Your task to perform on an android device: turn on javascript in the chrome app Image 0: 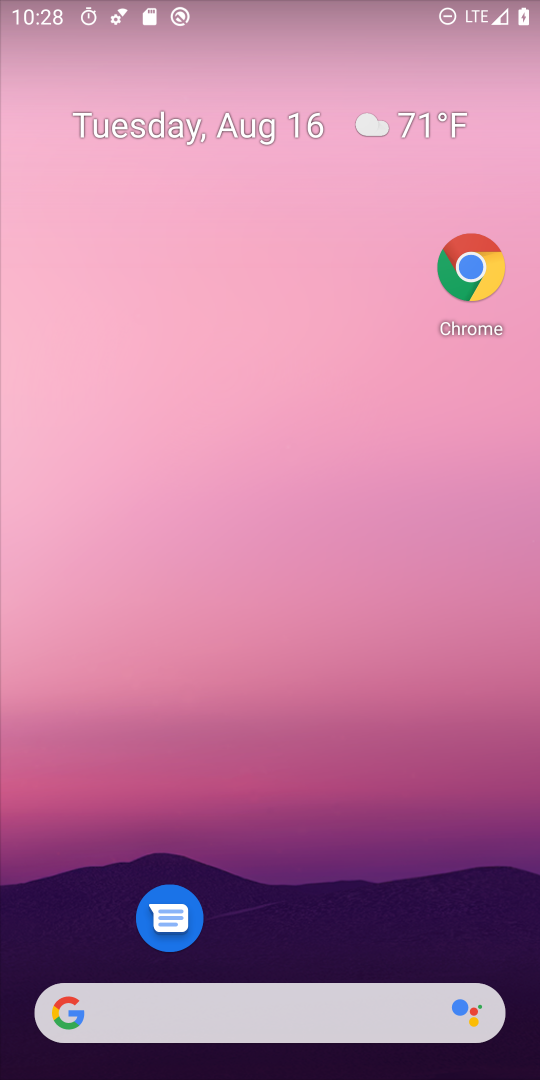
Step 0: drag from (273, 955) to (222, 206)
Your task to perform on an android device: turn on javascript in the chrome app Image 1: 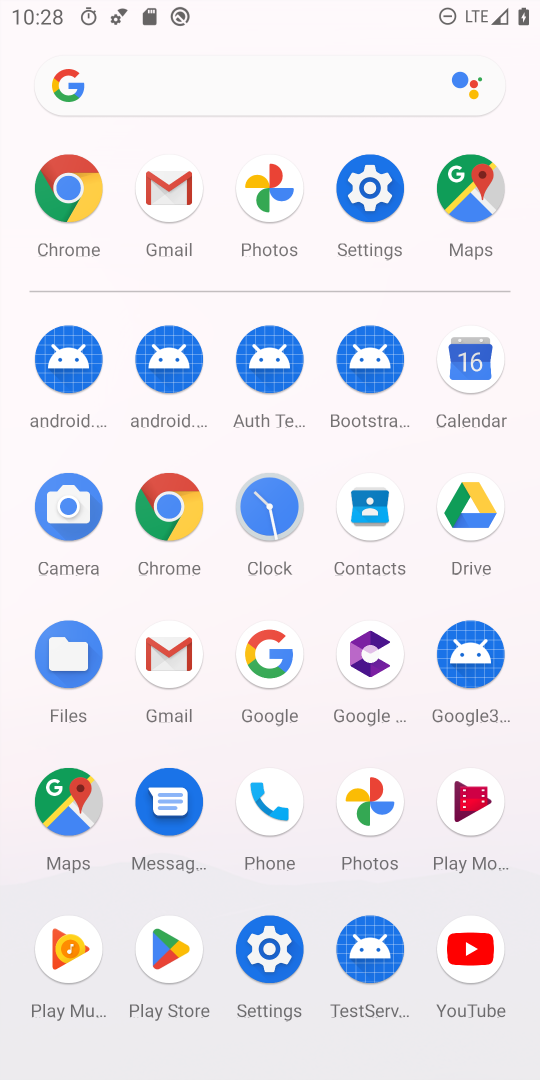
Step 1: click (175, 547)
Your task to perform on an android device: turn on javascript in the chrome app Image 2: 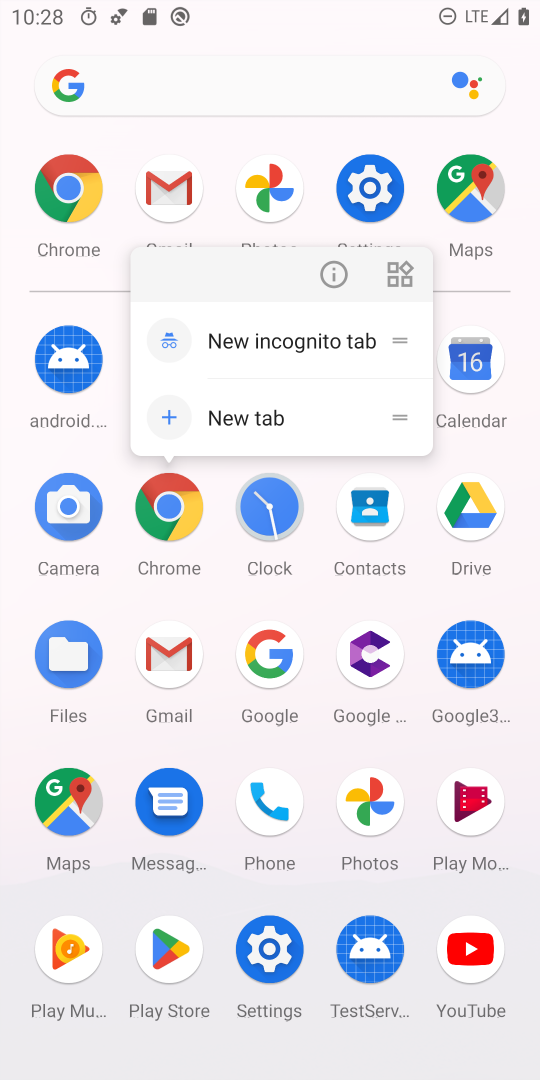
Step 2: click (172, 541)
Your task to perform on an android device: turn on javascript in the chrome app Image 3: 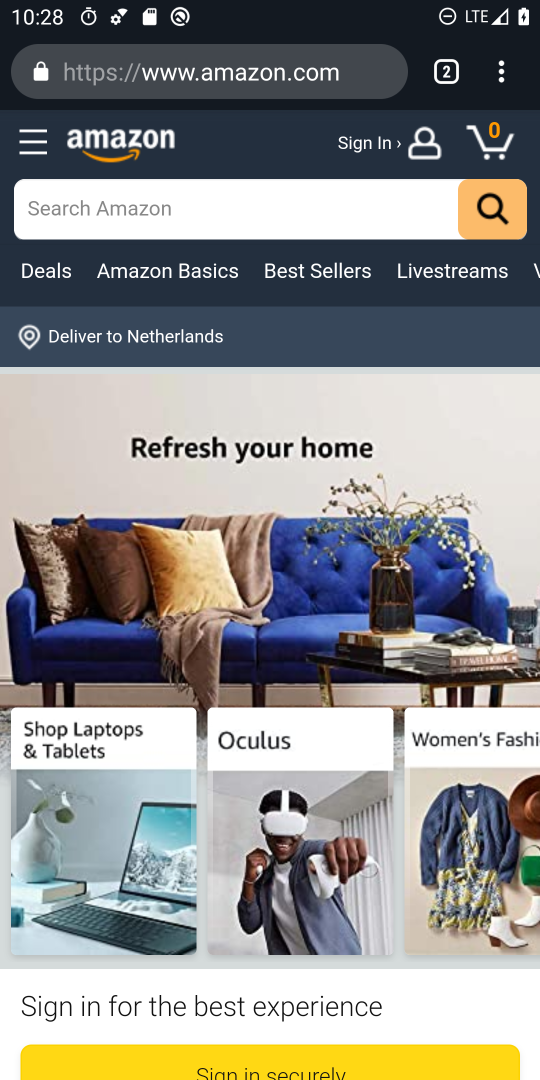
Step 3: click (515, 78)
Your task to perform on an android device: turn on javascript in the chrome app Image 4: 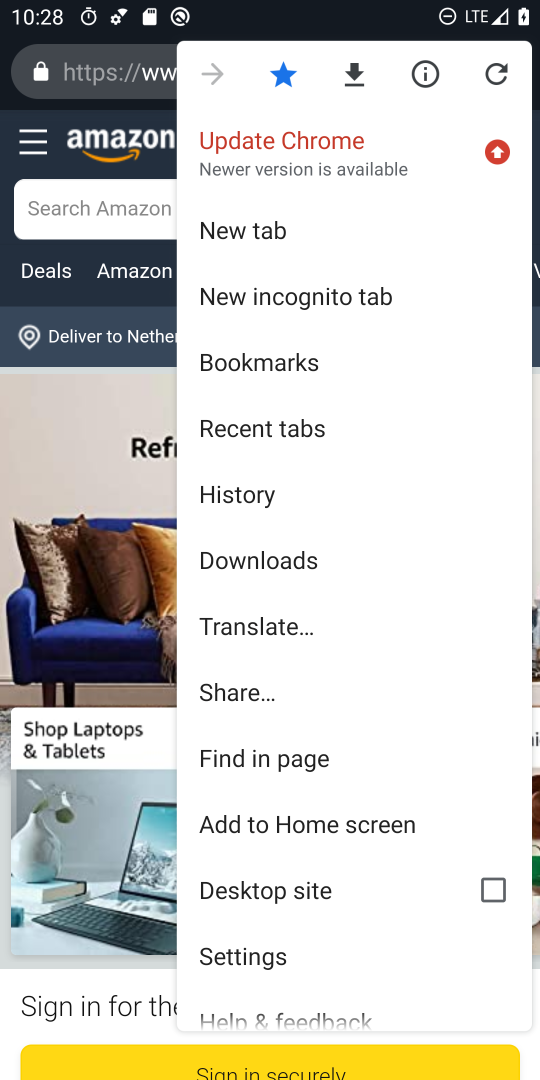
Step 4: click (279, 950)
Your task to perform on an android device: turn on javascript in the chrome app Image 5: 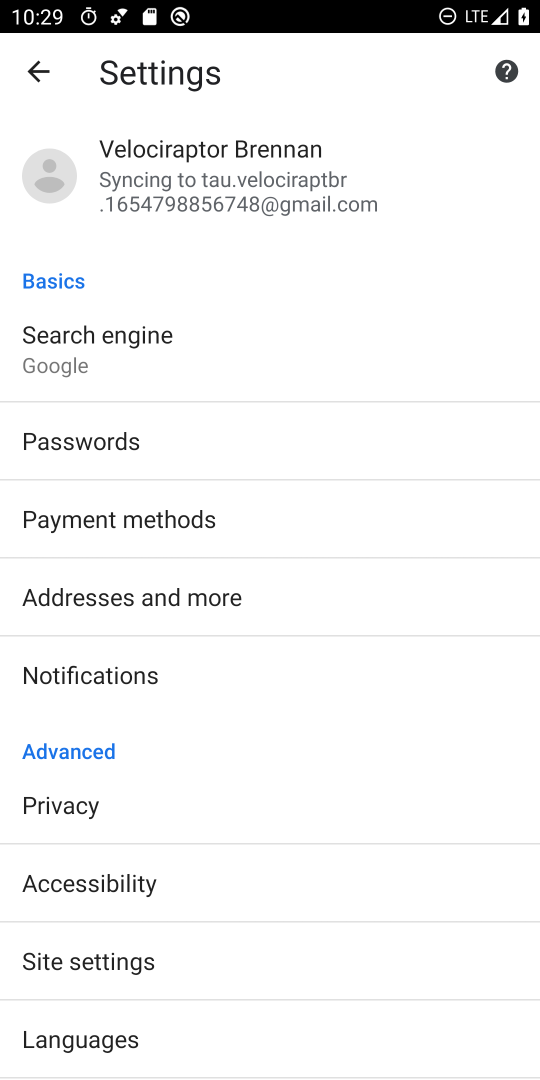
Step 5: click (160, 960)
Your task to perform on an android device: turn on javascript in the chrome app Image 6: 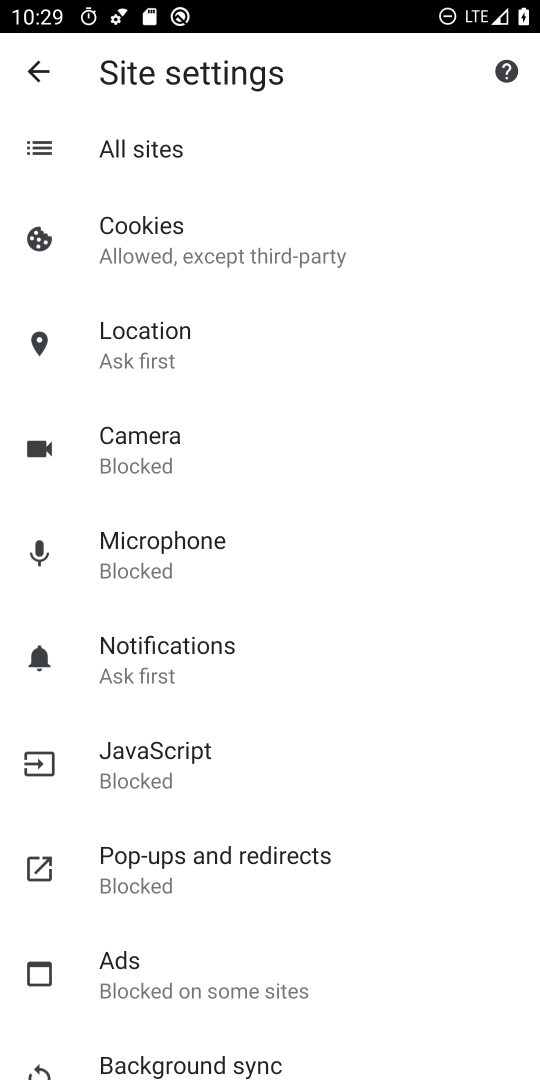
Step 6: click (171, 780)
Your task to perform on an android device: turn on javascript in the chrome app Image 7: 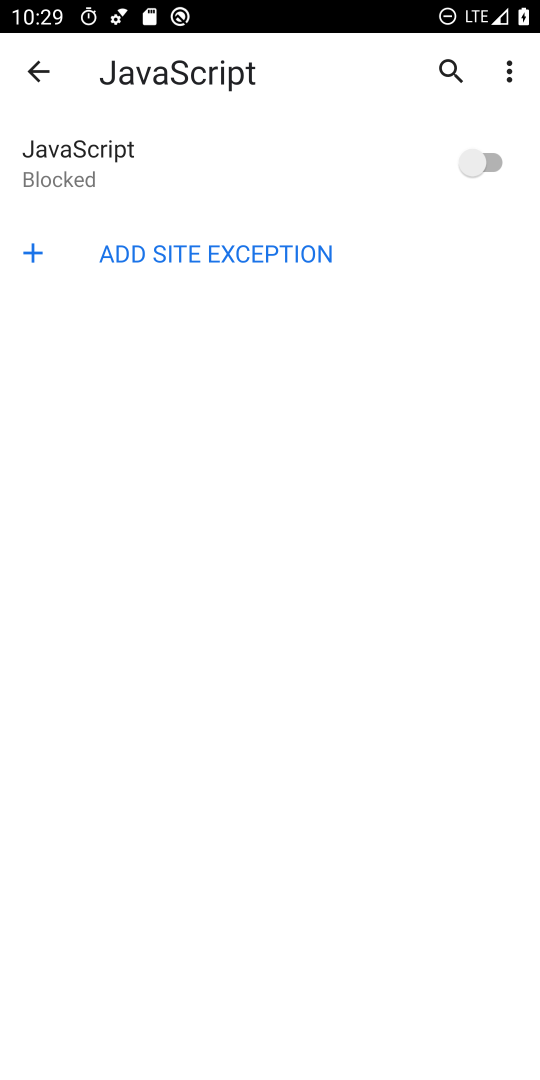
Step 7: click (482, 163)
Your task to perform on an android device: turn on javascript in the chrome app Image 8: 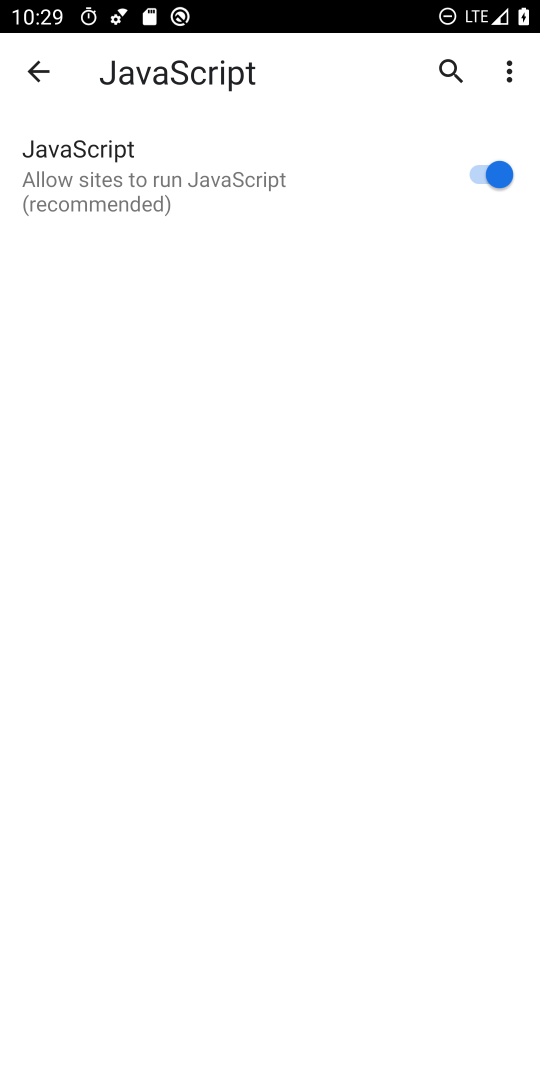
Step 8: task complete